Your task to perform on an android device: Open display settings Image 0: 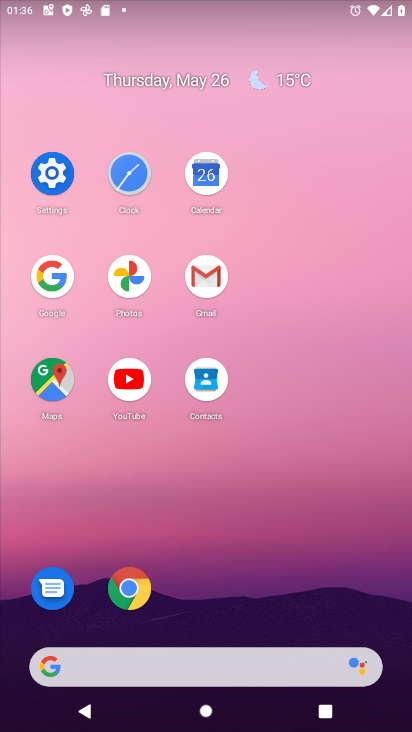
Step 0: click (45, 186)
Your task to perform on an android device: Open display settings Image 1: 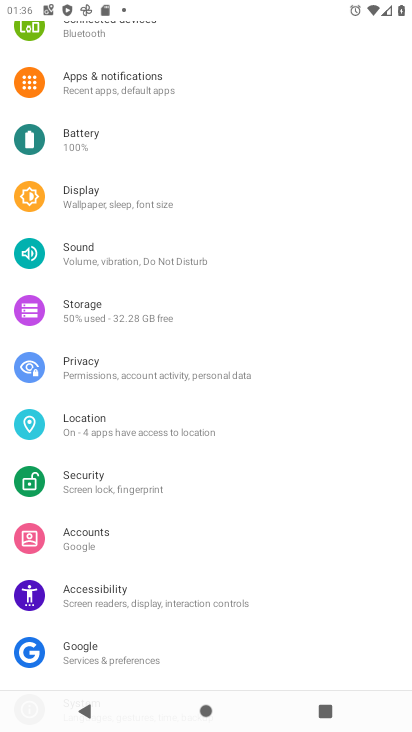
Step 1: click (144, 194)
Your task to perform on an android device: Open display settings Image 2: 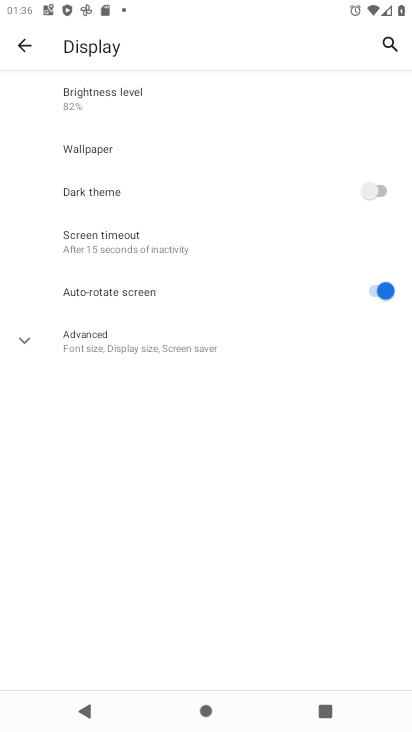
Step 2: task complete